Your task to perform on an android device: Go to location settings Image 0: 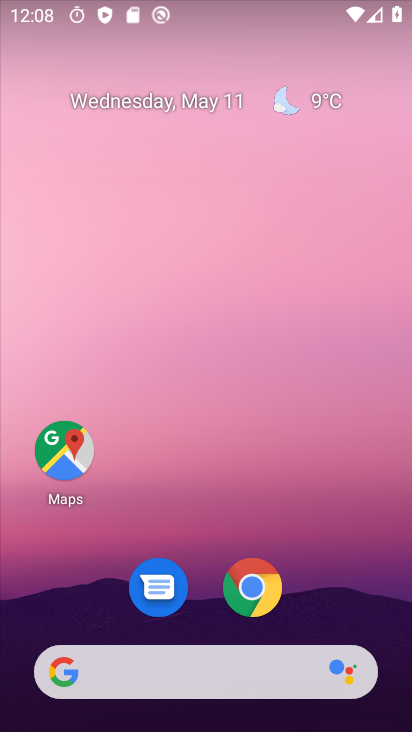
Step 0: drag from (378, 612) to (143, 159)
Your task to perform on an android device: Go to location settings Image 1: 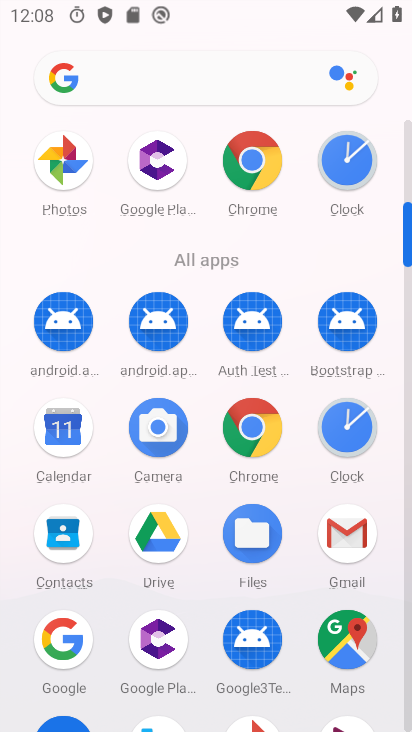
Step 1: drag from (210, 530) to (178, 103)
Your task to perform on an android device: Go to location settings Image 2: 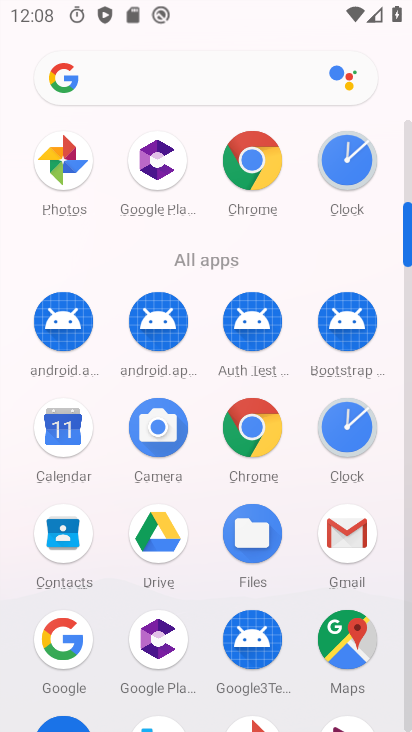
Step 2: drag from (229, 415) to (182, 153)
Your task to perform on an android device: Go to location settings Image 3: 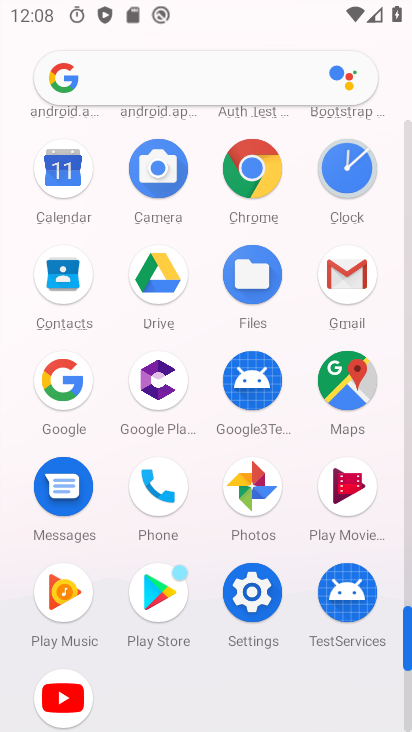
Step 3: click (244, 573)
Your task to perform on an android device: Go to location settings Image 4: 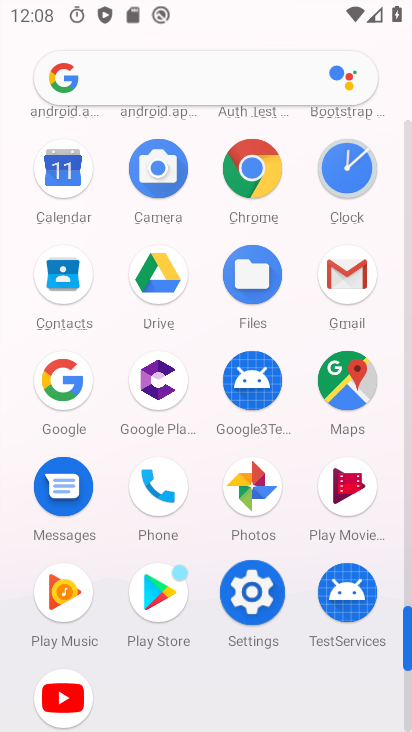
Step 4: click (258, 590)
Your task to perform on an android device: Go to location settings Image 5: 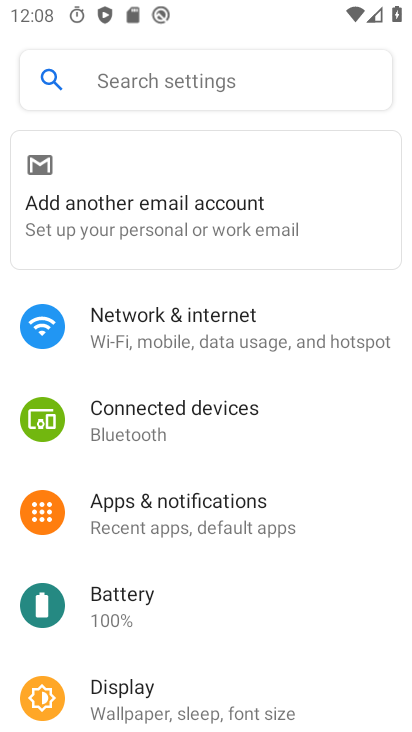
Step 5: drag from (171, 589) to (139, 281)
Your task to perform on an android device: Go to location settings Image 6: 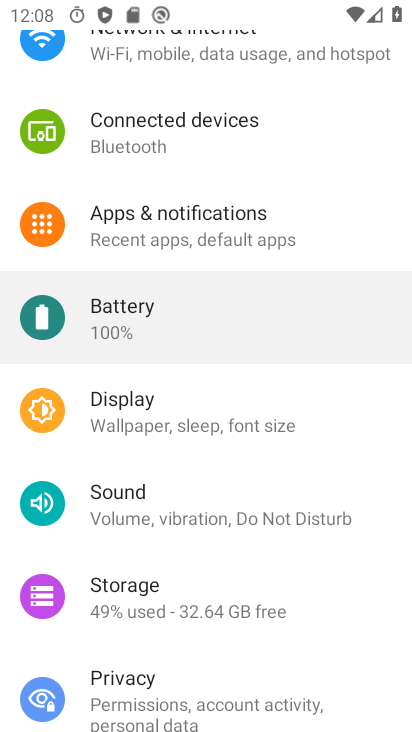
Step 6: drag from (172, 581) to (154, 217)
Your task to perform on an android device: Go to location settings Image 7: 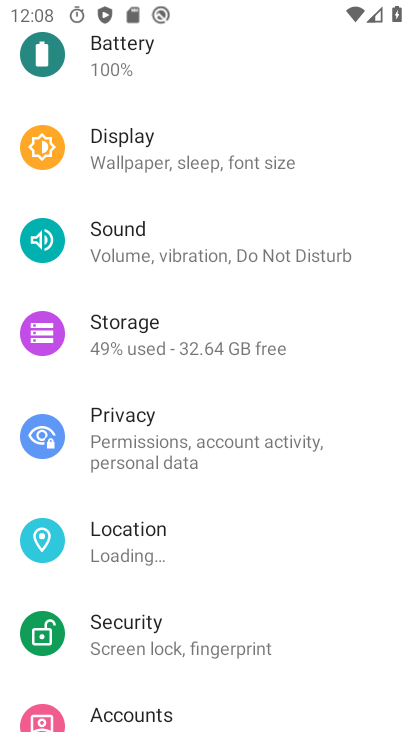
Step 7: drag from (152, 537) to (139, 132)
Your task to perform on an android device: Go to location settings Image 8: 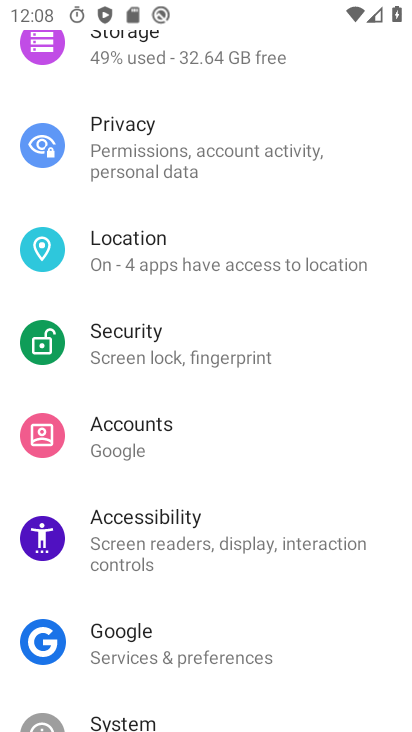
Step 8: click (142, 249)
Your task to perform on an android device: Go to location settings Image 9: 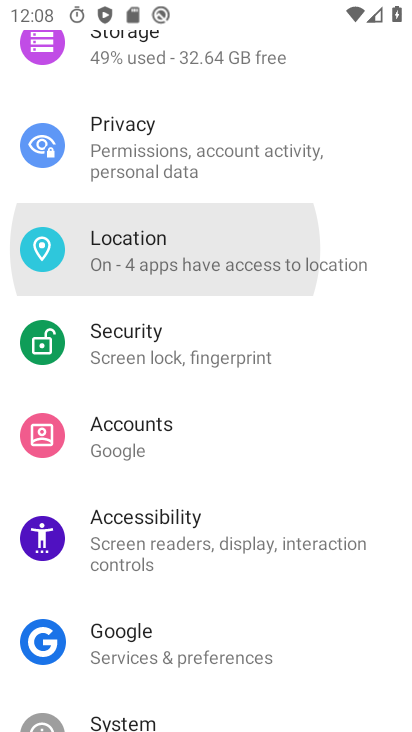
Step 9: click (144, 253)
Your task to perform on an android device: Go to location settings Image 10: 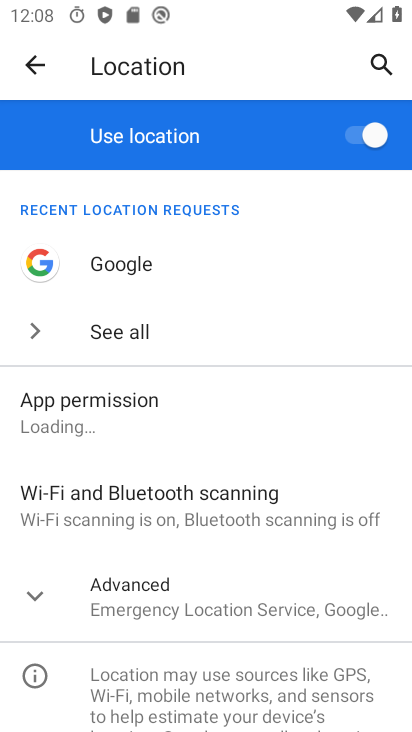
Step 10: task complete